Your task to perform on an android device: open app "ZOOM Cloud Meetings" Image 0: 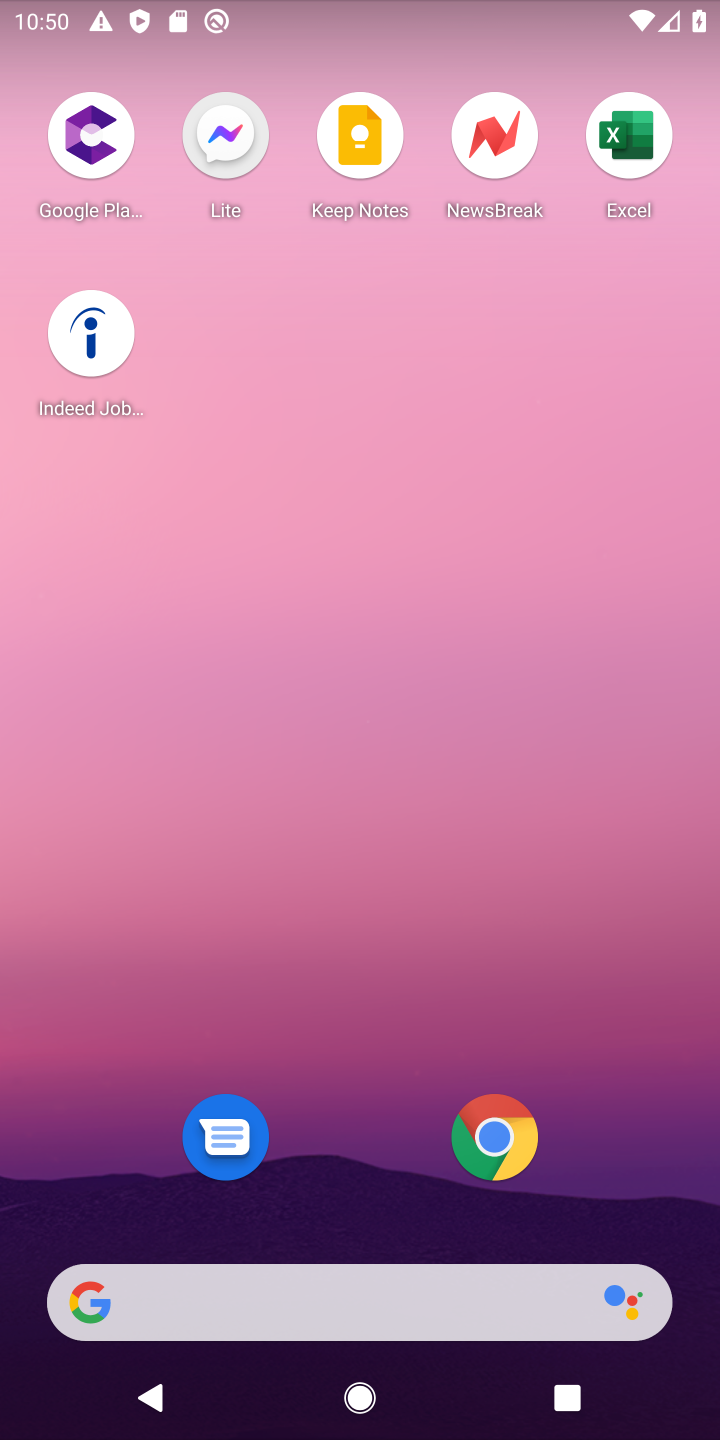
Step 0: drag from (637, 1207) to (378, 99)
Your task to perform on an android device: open app "ZOOM Cloud Meetings" Image 1: 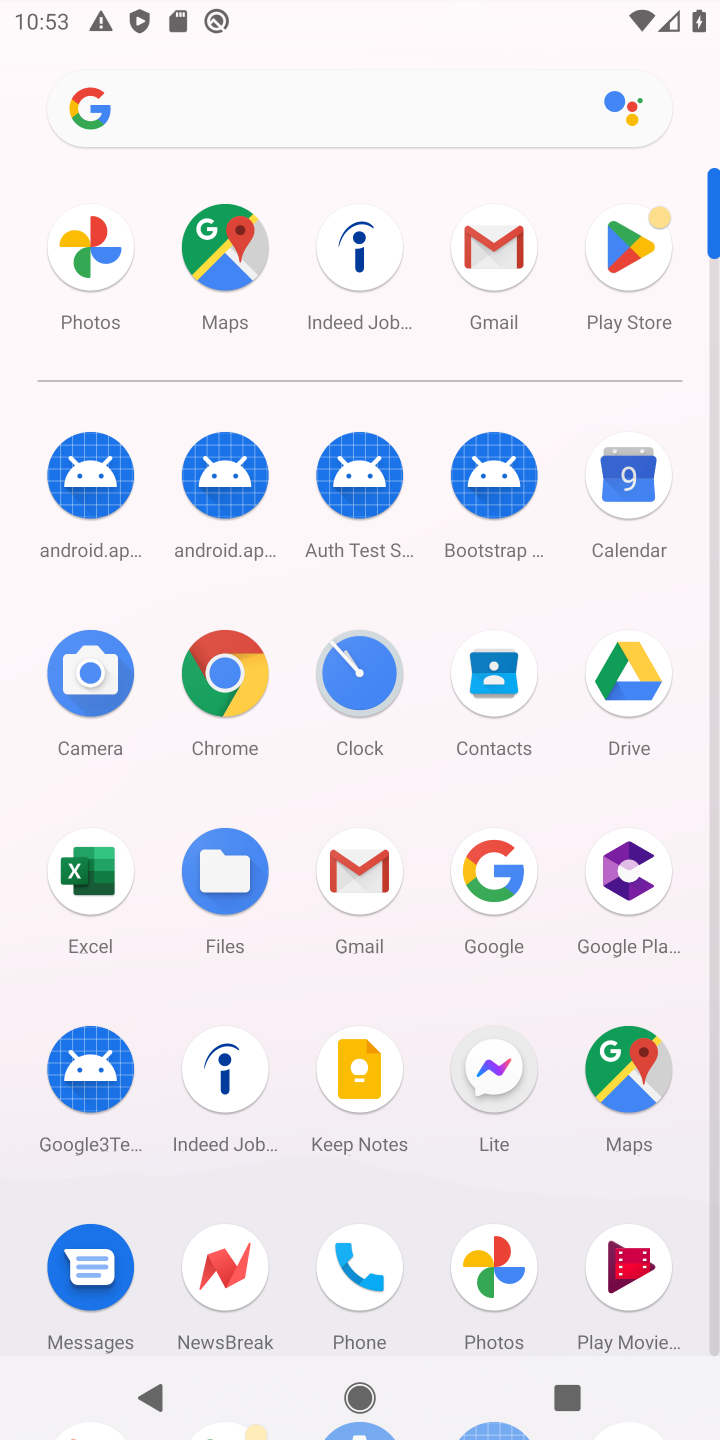
Step 1: click (602, 230)
Your task to perform on an android device: open app "ZOOM Cloud Meetings" Image 2: 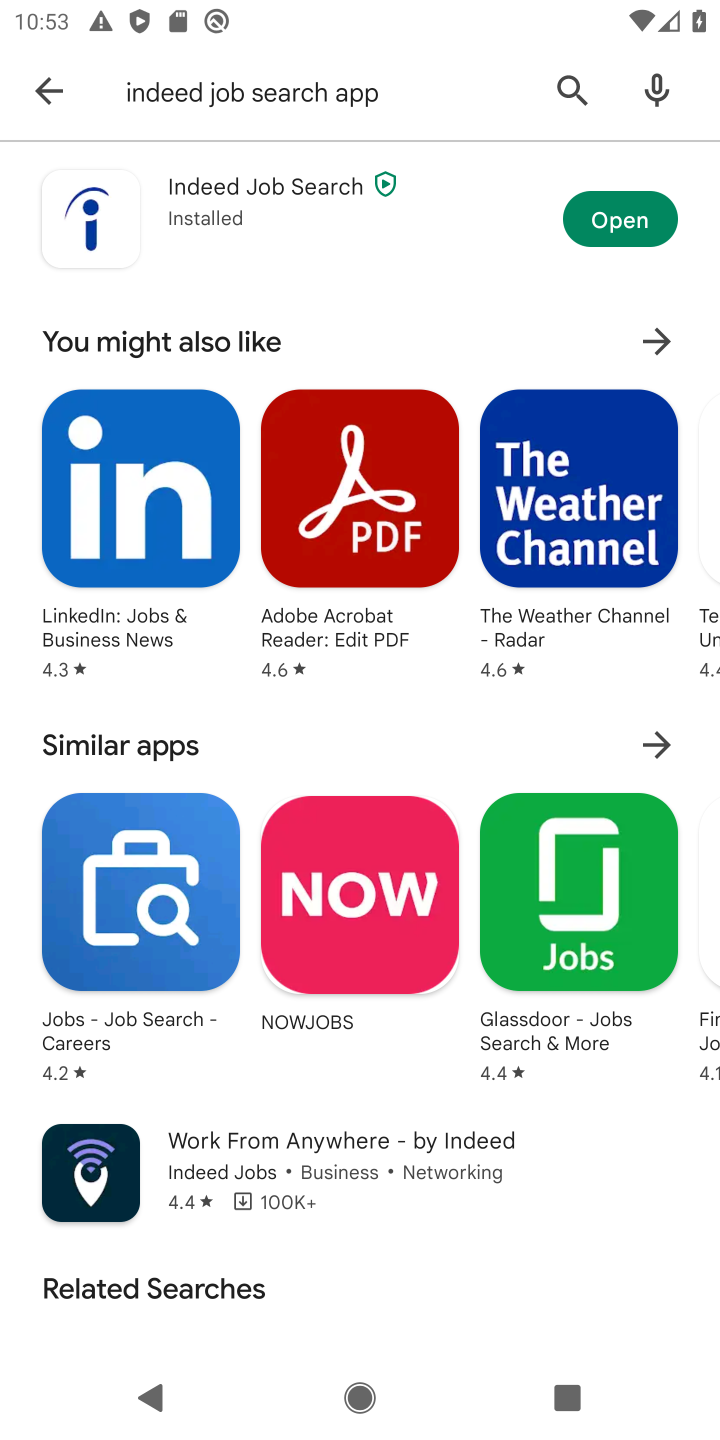
Step 2: press back button
Your task to perform on an android device: open app "ZOOM Cloud Meetings" Image 3: 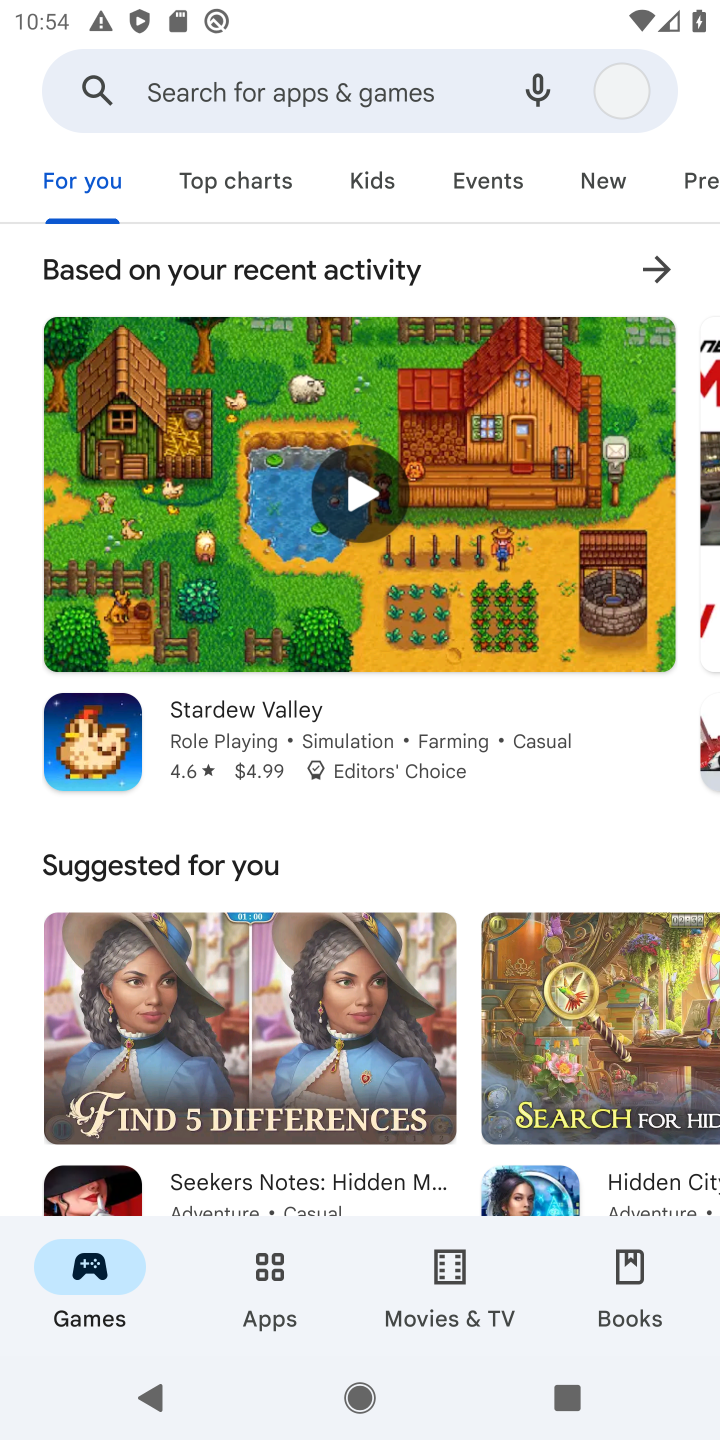
Step 3: click (263, 100)
Your task to perform on an android device: open app "ZOOM Cloud Meetings" Image 4: 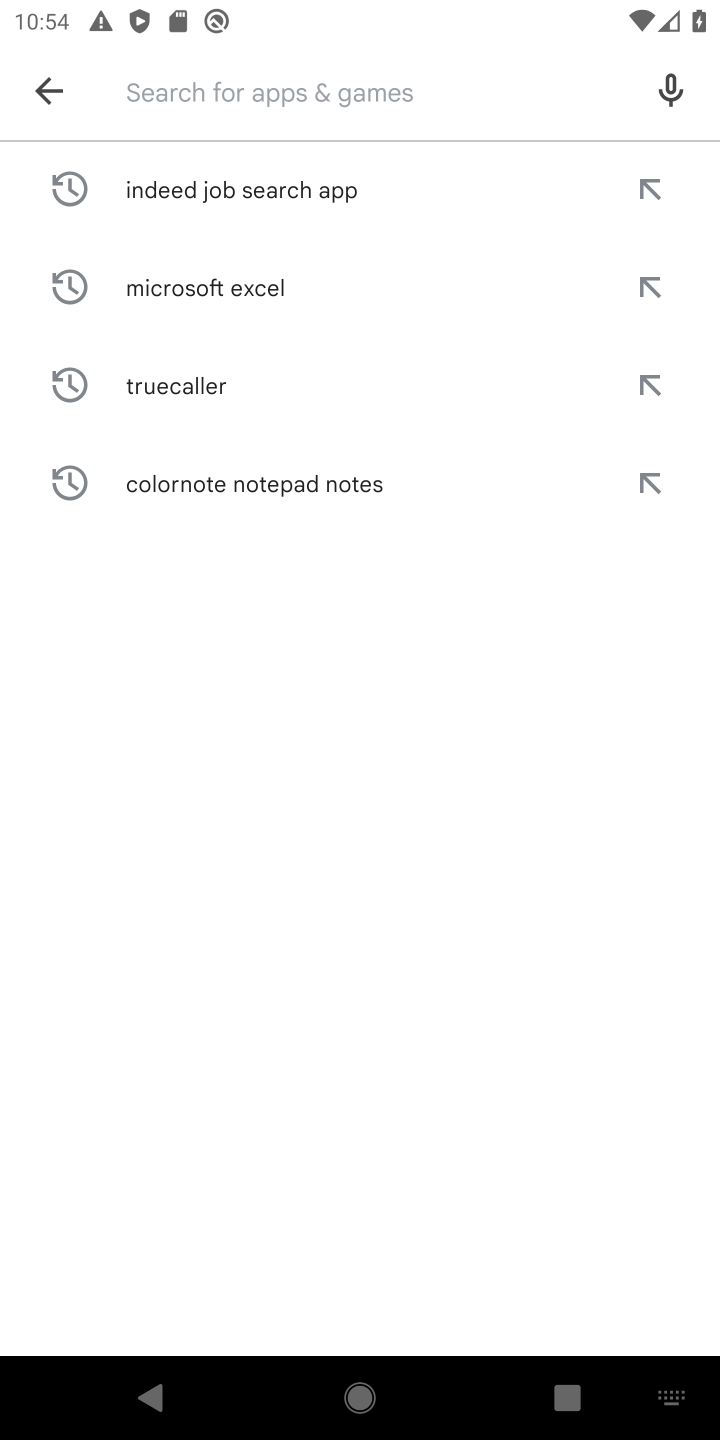
Step 4: type "ZOOM Cloud Meetings"
Your task to perform on an android device: open app "ZOOM Cloud Meetings" Image 5: 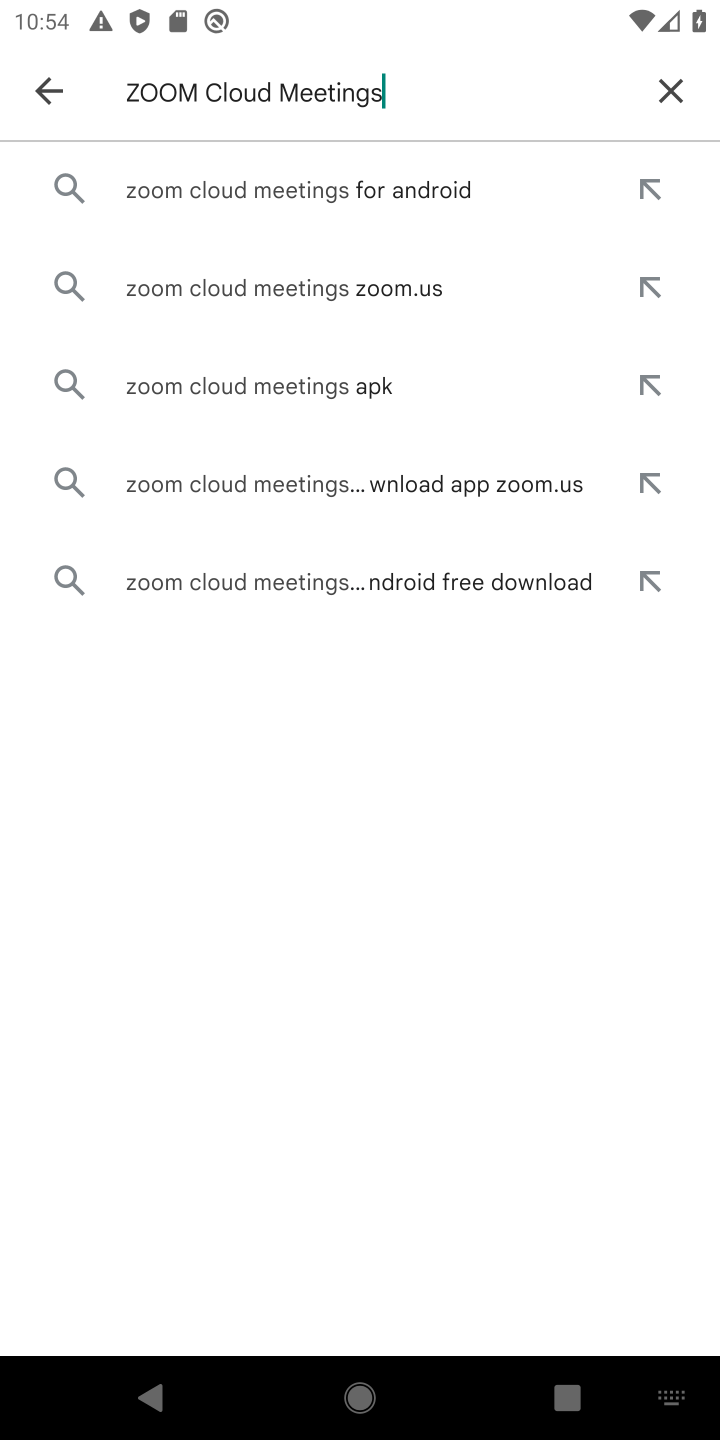
Step 5: click (205, 186)
Your task to perform on an android device: open app "ZOOM Cloud Meetings" Image 6: 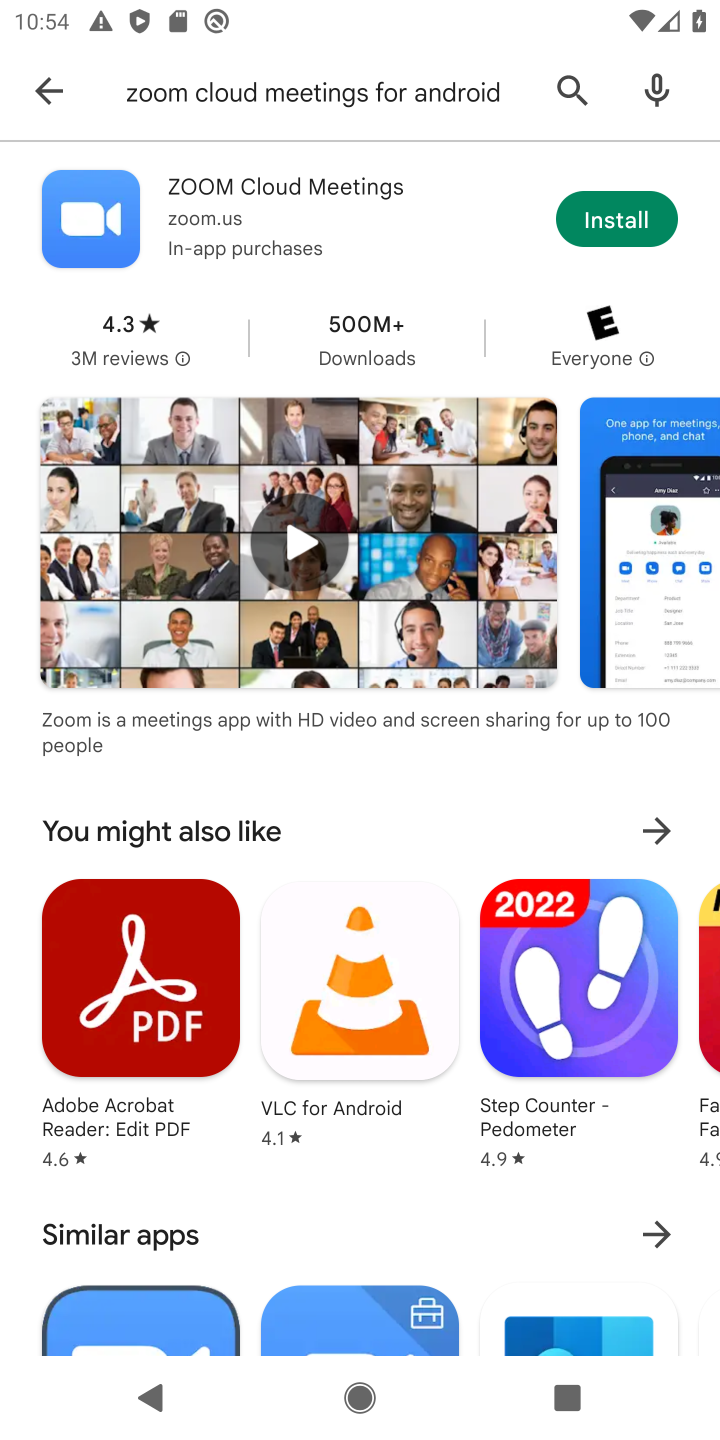
Step 6: task complete